Your task to perform on an android device: toggle pop-ups in chrome Image 0: 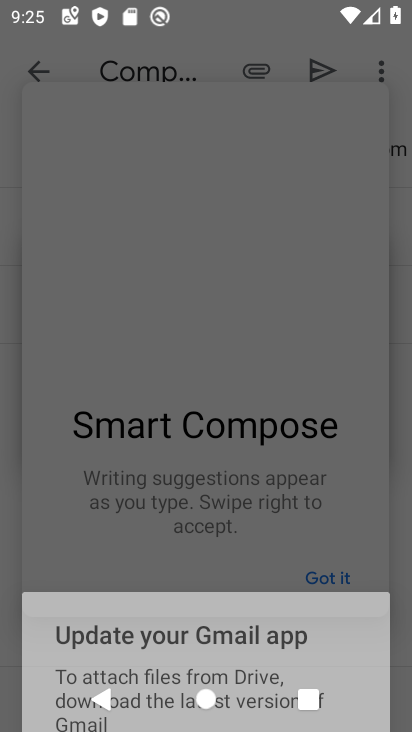
Step 0: press home button
Your task to perform on an android device: toggle pop-ups in chrome Image 1: 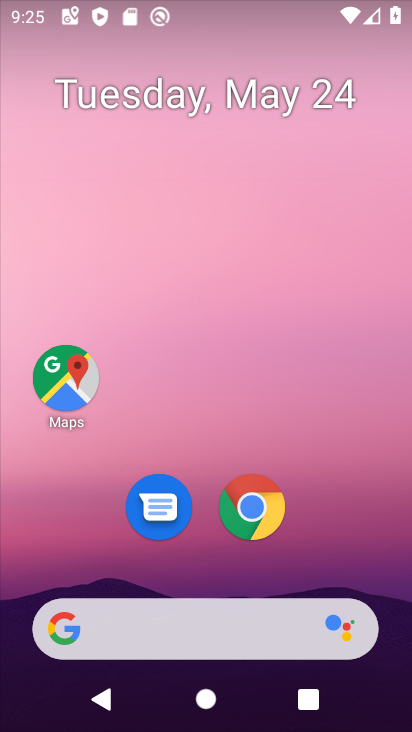
Step 1: click (253, 511)
Your task to perform on an android device: toggle pop-ups in chrome Image 2: 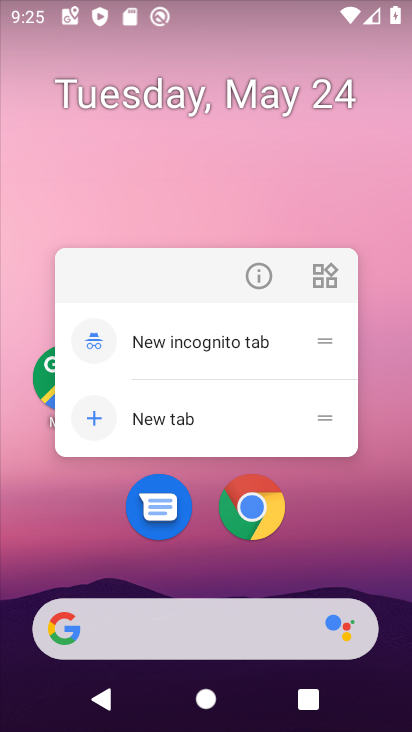
Step 2: click (253, 510)
Your task to perform on an android device: toggle pop-ups in chrome Image 3: 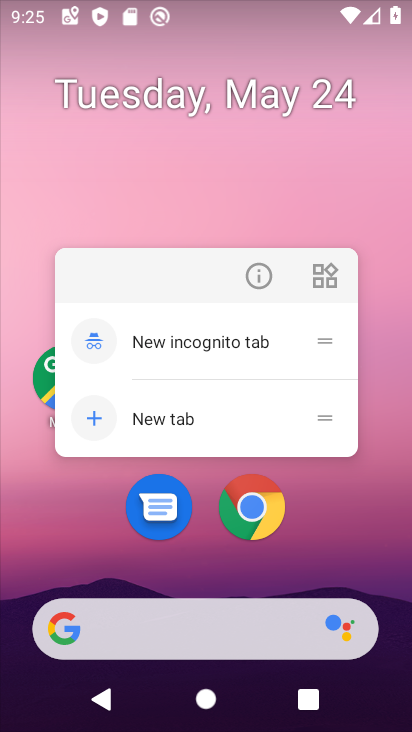
Step 3: click (253, 520)
Your task to perform on an android device: toggle pop-ups in chrome Image 4: 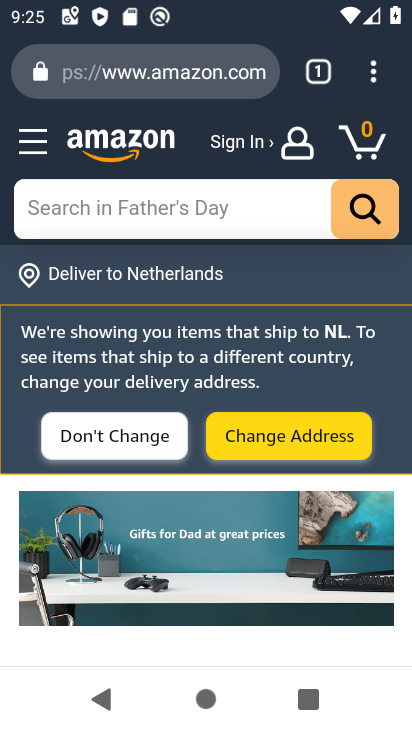
Step 4: drag from (381, 65) to (224, 506)
Your task to perform on an android device: toggle pop-ups in chrome Image 5: 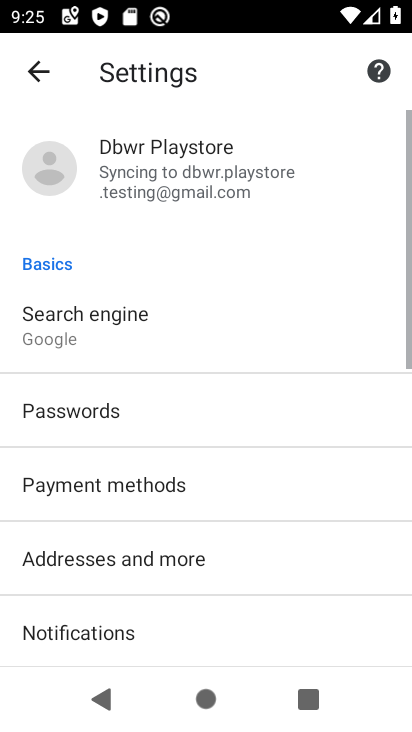
Step 5: drag from (157, 522) to (246, 176)
Your task to perform on an android device: toggle pop-ups in chrome Image 6: 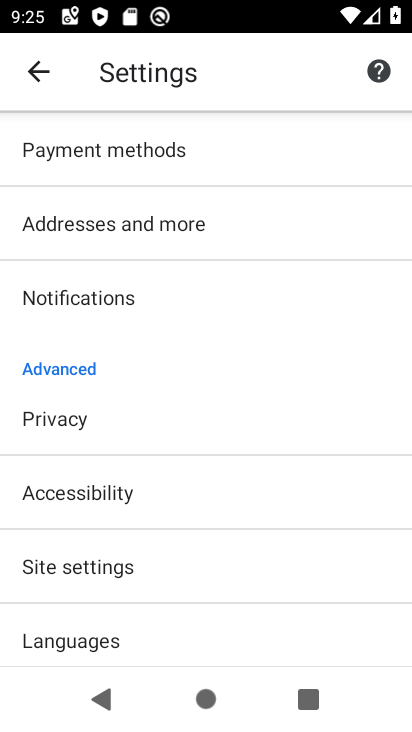
Step 6: click (175, 567)
Your task to perform on an android device: toggle pop-ups in chrome Image 7: 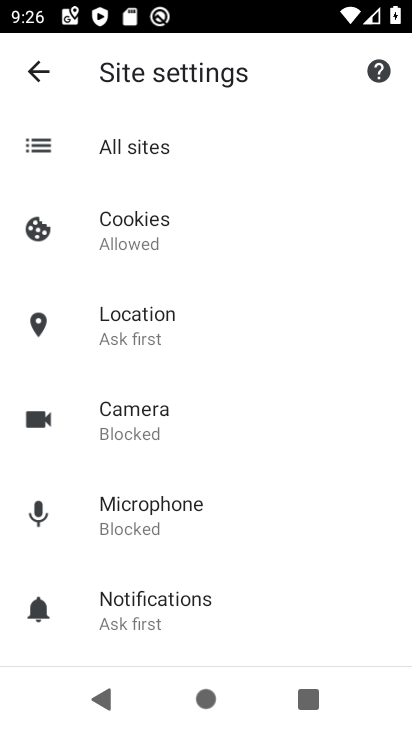
Step 7: drag from (235, 577) to (316, 315)
Your task to perform on an android device: toggle pop-ups in chrome Image 8: 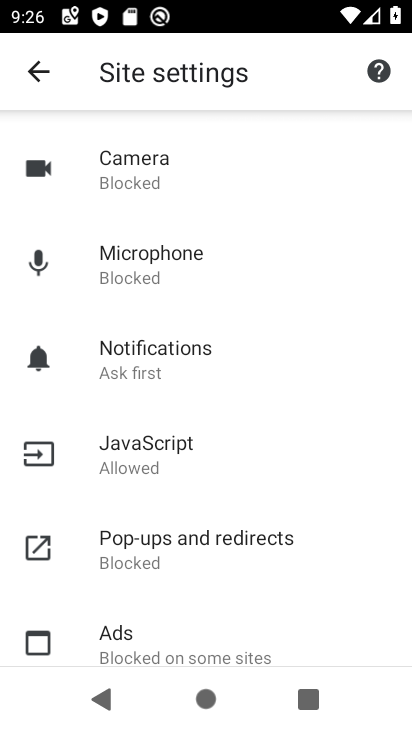
Step 8: click (249, 553)
Your task to perform on an android device: toggle pop-ups in chrome Image 9: 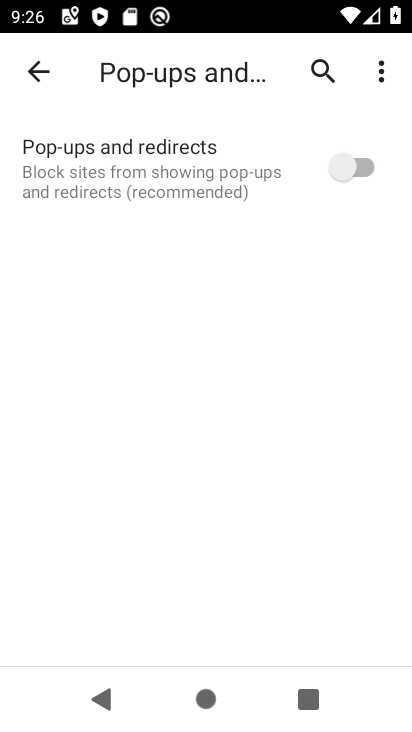
Step 9: click (374, 169)
Your task to perform on an android device: toggle pop-ups in chrome Image 10: 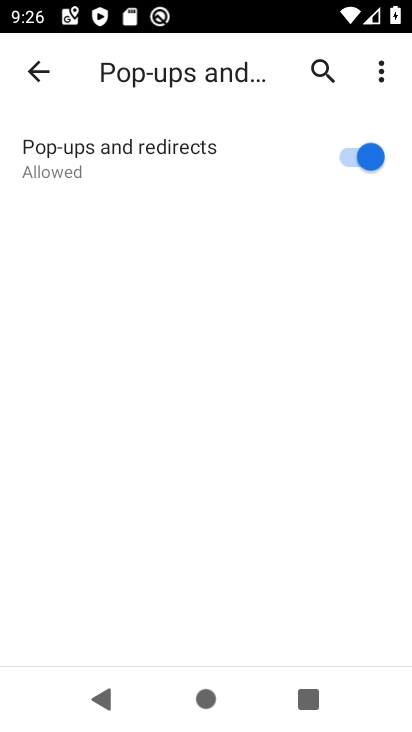
Step 10: task complete